Your task to perform on an android device: When is my next meeting? Image 0: 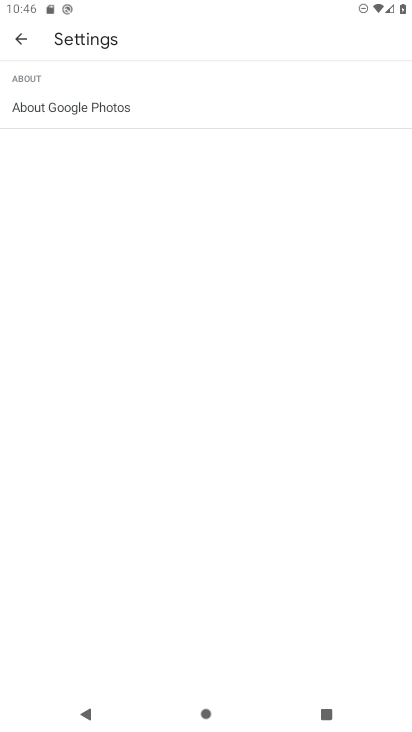
Step 0: press home button
Your task to perform on an android device: When is my next meeting? Image 1: 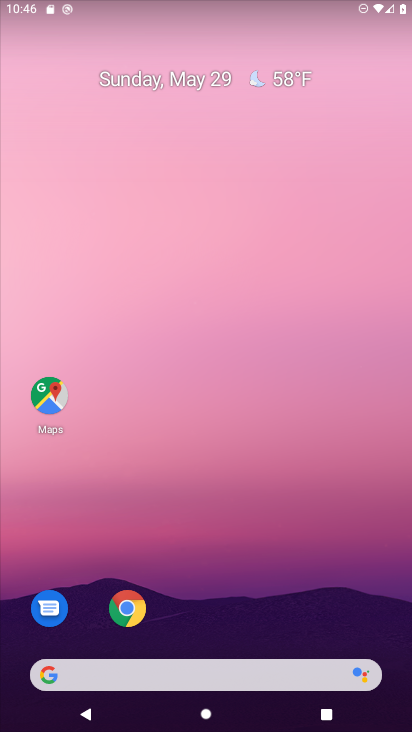
Step 1: drag from (217, 663) to (264, 309)
Your task to perform on an android device: When is my next meeting? Image 2: 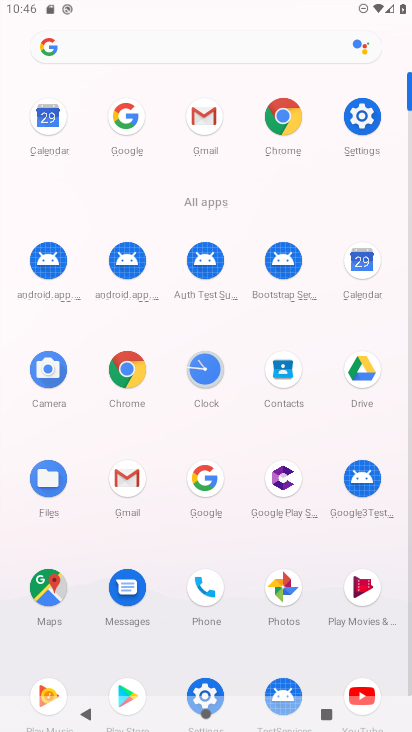
Step 2: click (370, 256)
Your task to perform on an android device: When is my next meeting? Image 3: 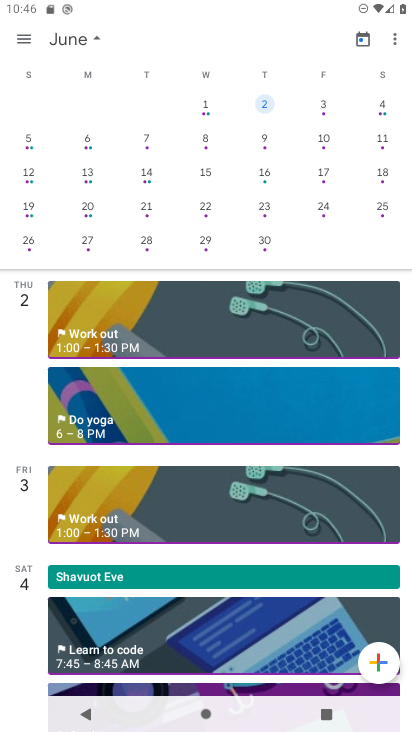
Step 3: drag from (35, 199) to (408, 309)
Your task to perform on an android device: When is my next meeting? Image 4: 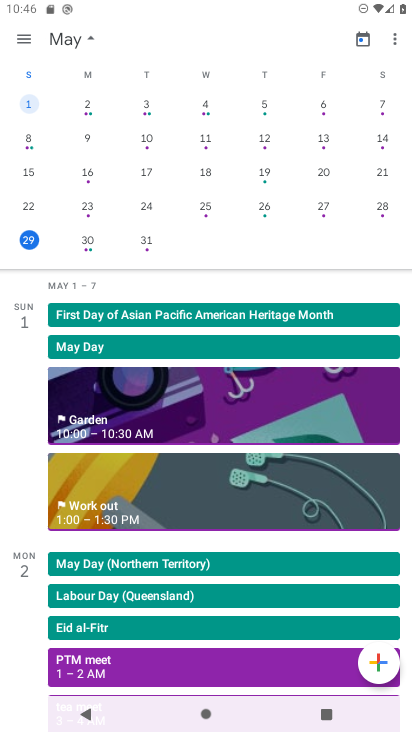
Step 4: click (84, 246)
Your task to perform on an android device: When is my next meeting? Image 5: 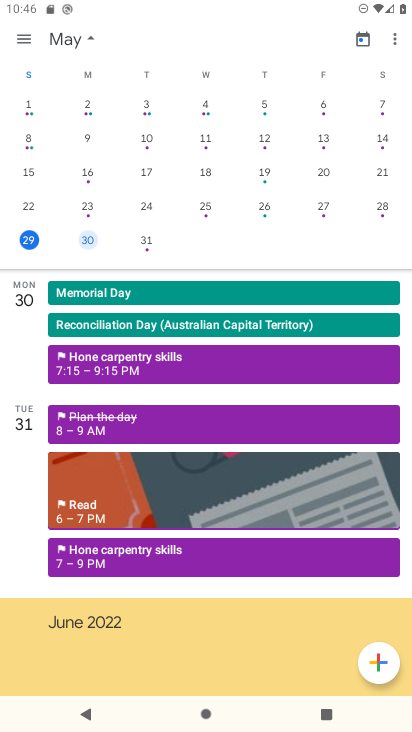
Step 5: click (148, 369)
Your task to perform on an android device: When is my next meeting? Image 6: 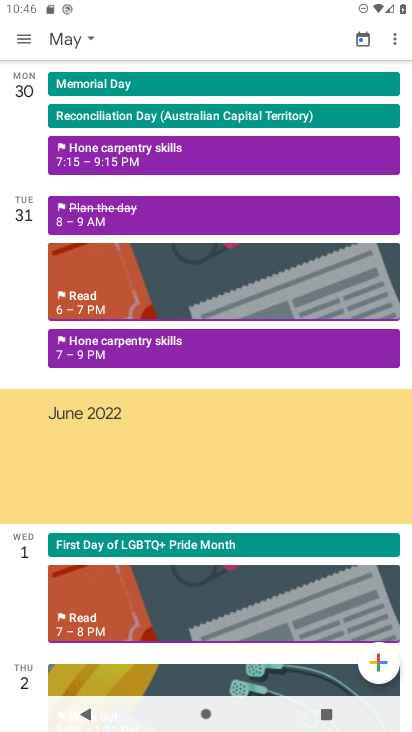
Step 6: click (167, 152)
Your task to perform on an android device: When is my next meeting? Image 7: 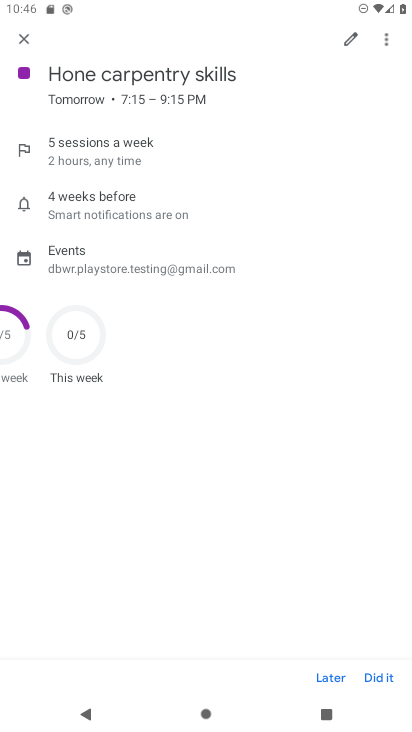
Step 7: task complete